Your task to perform on an android device: delete browsing data in the chrome app Image 0: 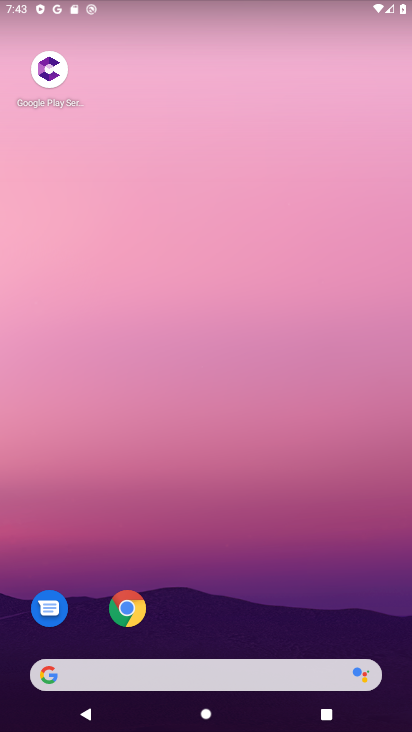
Step 0: drag from (221, 406) to (200, 258)
Your task to perform on an android device: delete browsing data in the chrome app Image 1: 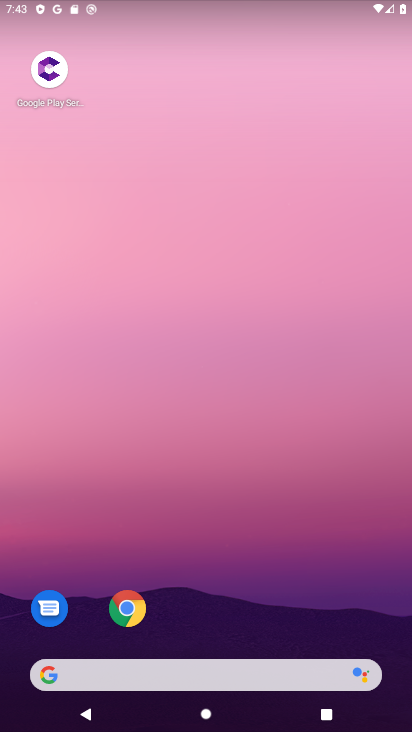
Step 1: drag from (225, 648) to (141, 113)
Your task to perform on an android device: delete browsing data in the chrome app Image 2: 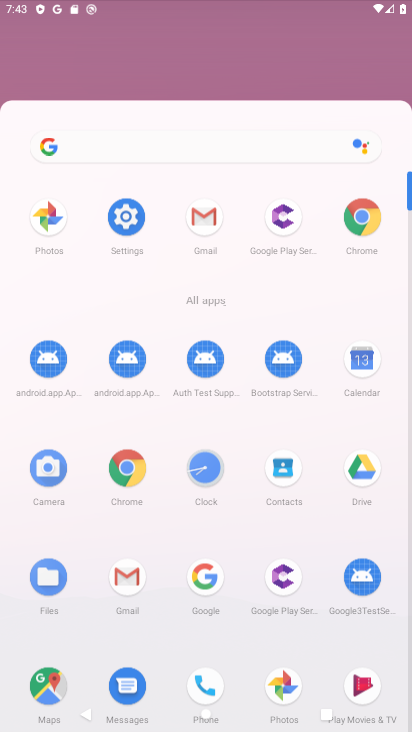
Step 2: drag from (219, 493) to (183, 246)
Your task to perform on an android device: delete browsing data in the chrome app Image 3: 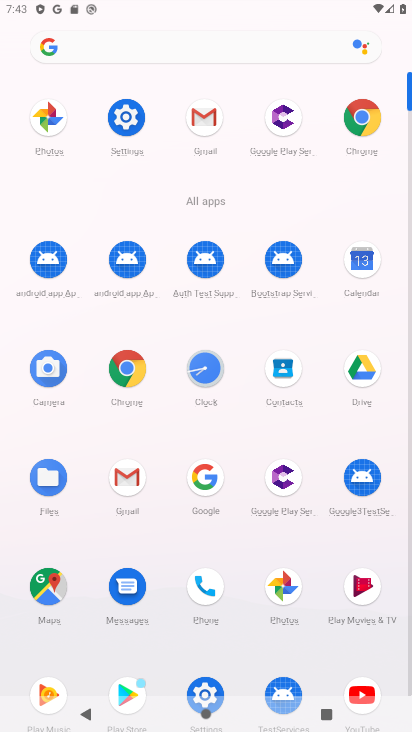
Step 3: drag from (211, 371) to (180, 122)
Your task to perform on an android device: delete browsing data in the chrome app Image 4: 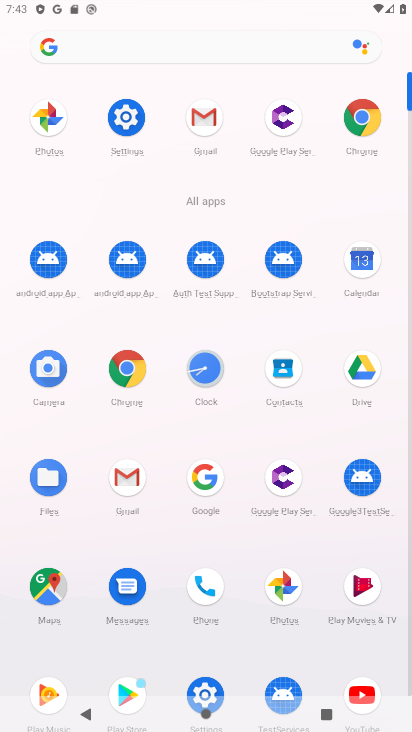
Step 4: click (124, 361)
Your task to perform on an android device: delete browsing data in the chrome app Image 5: 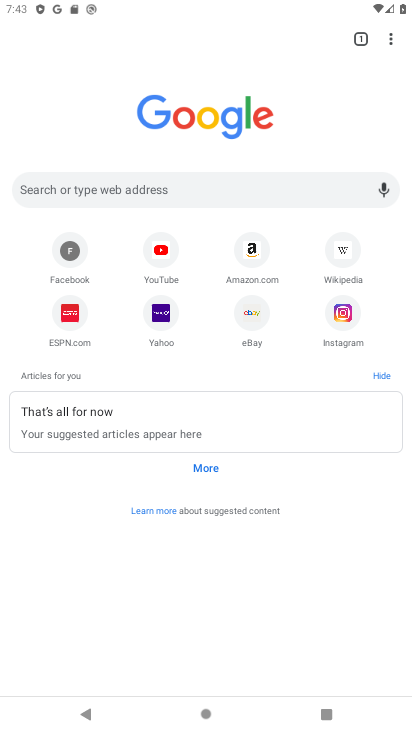
Step 5: drag from (393, 30) to (242, 221)
Your task to perform on an android device: delete browsing data in the chrome app Image 6: 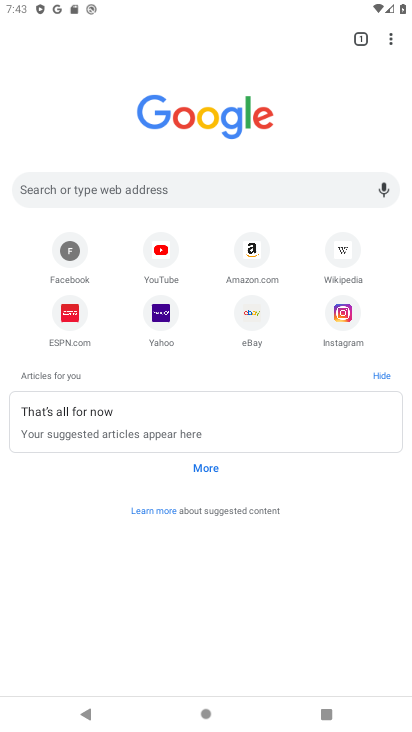
Step 6: click (242, 221)
Your task to perform on an android device: delete browsing data in the chrome app Image 7: 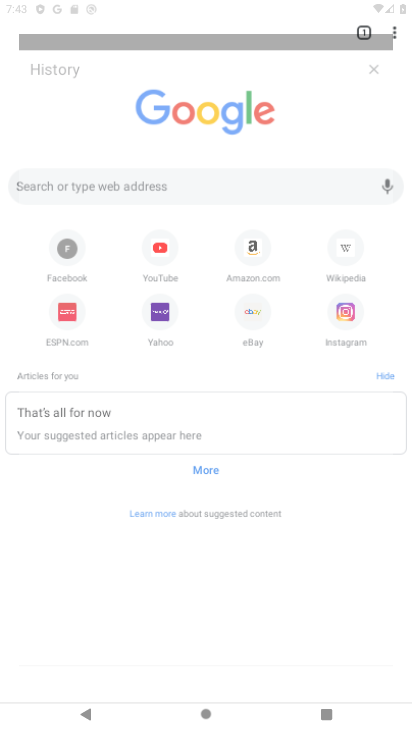
Step 7: click (244, 219)
Your task to perform on an android device: delete browsing data in the chrome app Image 8: 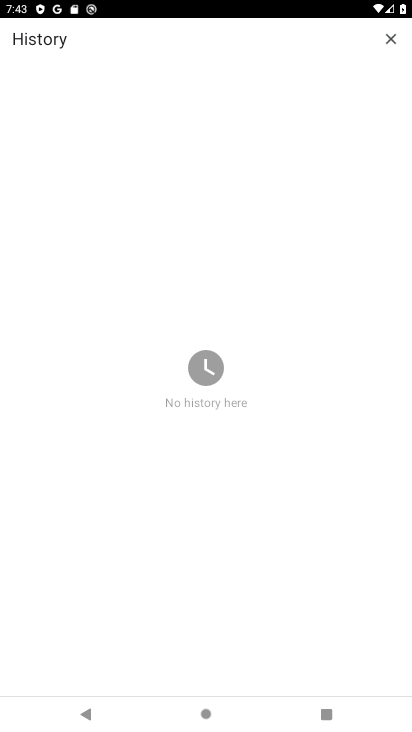
Step 8: task complete